Your task to perform on an android device: toggle notifications settings in the gmail app Image 0: 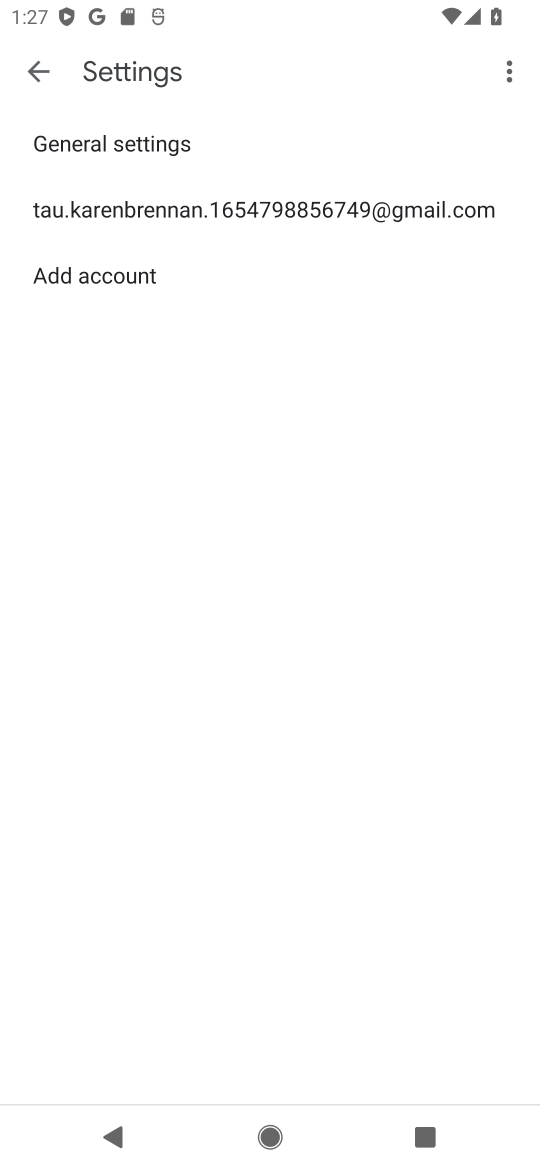
Step 0: click (134, 139)
Your task to perform on an android device: toggle notifications settings in the gmail app Image 1: 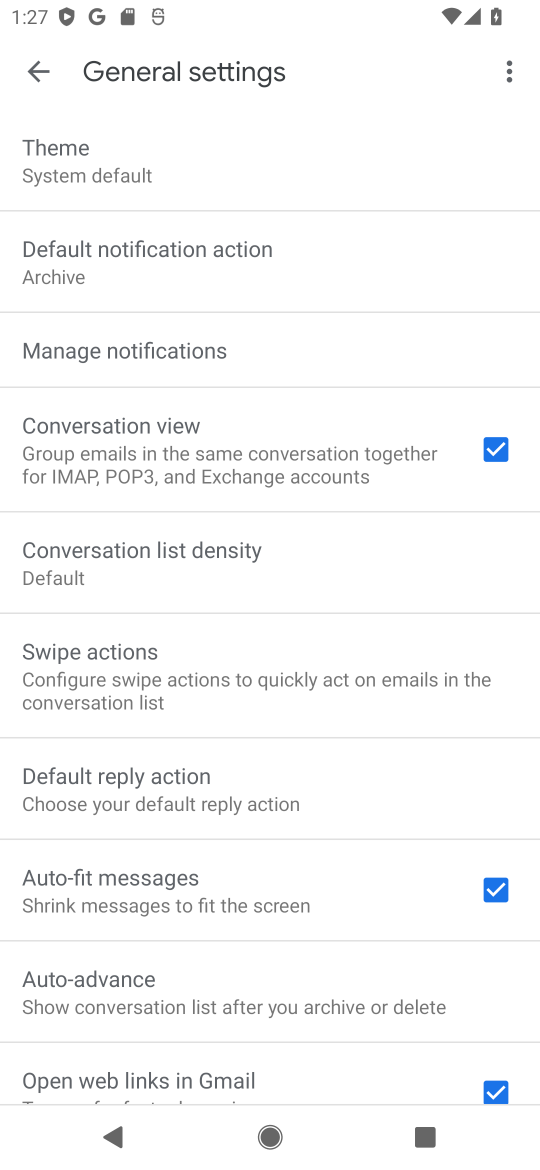
Step 1: click (83, 354)
Your task to perform on an android device: toggle notifications settings in the gmail app Image 2: 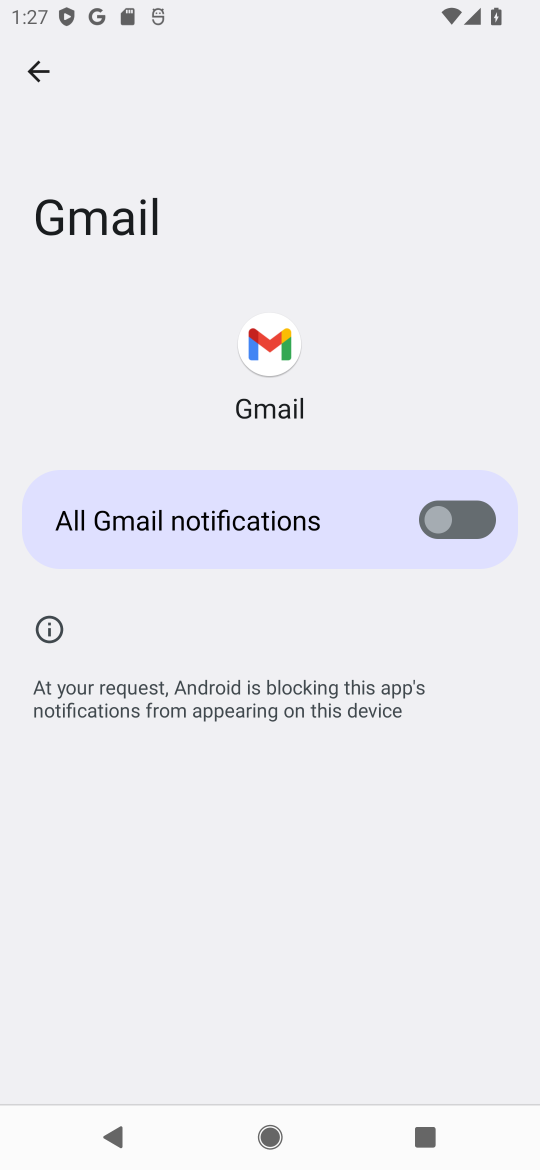
Step 2: click (432, 526)
Your task to perform on an android device: toggle notifications settings in the gmail app Image 3: 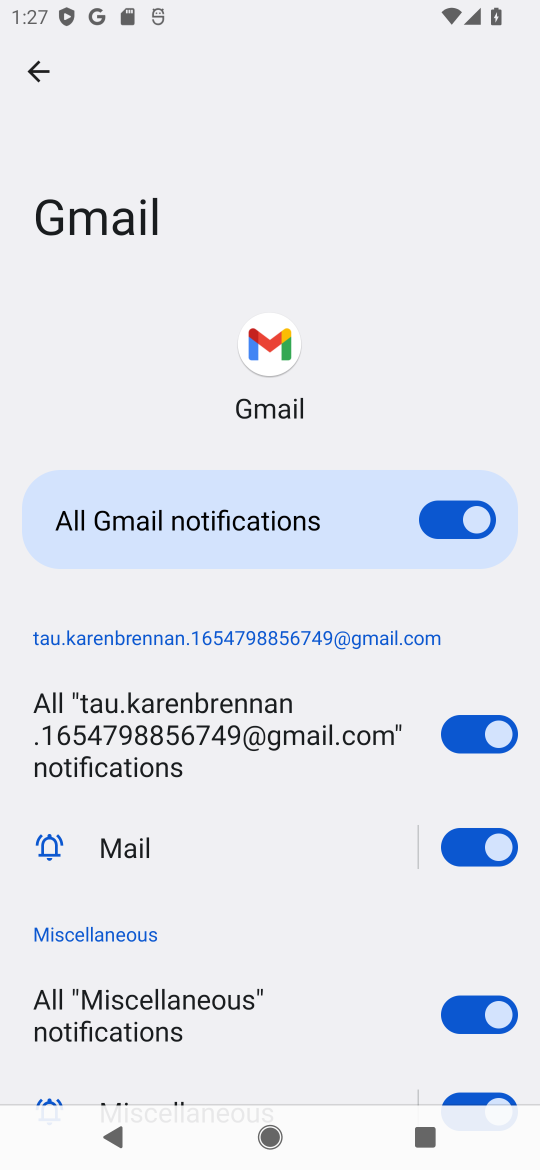
Step 3: task complete